Your task to perform on an android device: turn off smart reply in the gmail app Image 0: 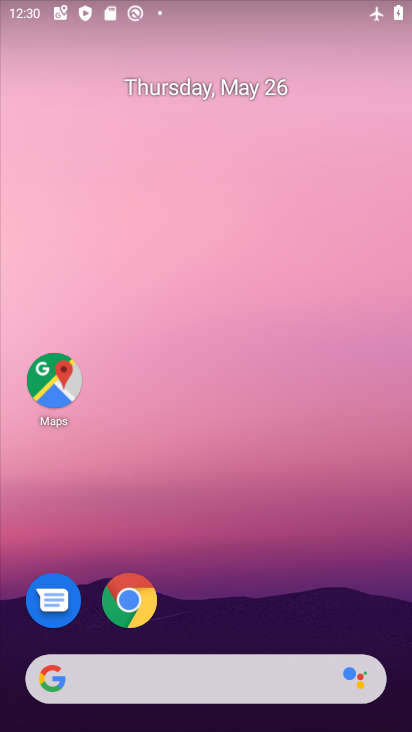
Step 0: drag from (264, 544) to (257, 102)
Your task to perform on an android device: turn off smart reply in the gmail app Image 1: 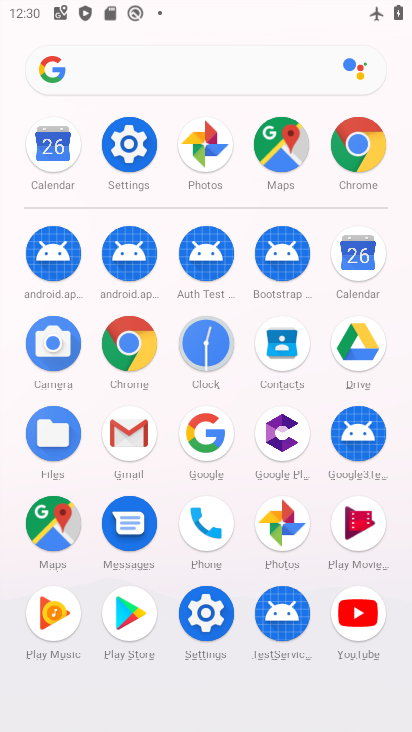
Step 1: click (138, 432)
Your task to perform on an android device: turn off smart reply in the gmail app Image 2: 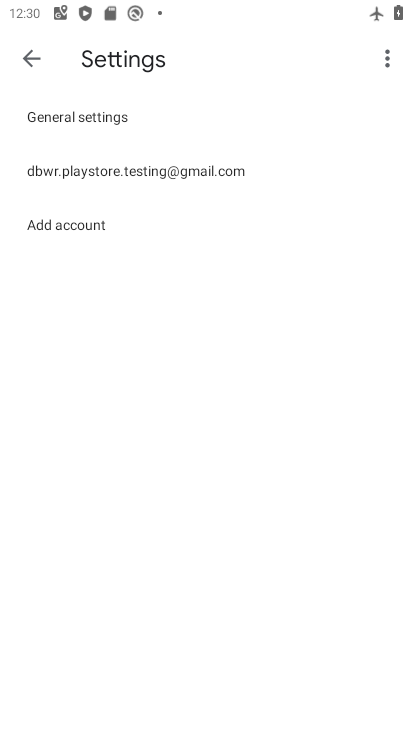
Step 2: click (135, 182)
Your task to perform on an android device: turn off smart reply in the gmail app Image 3: 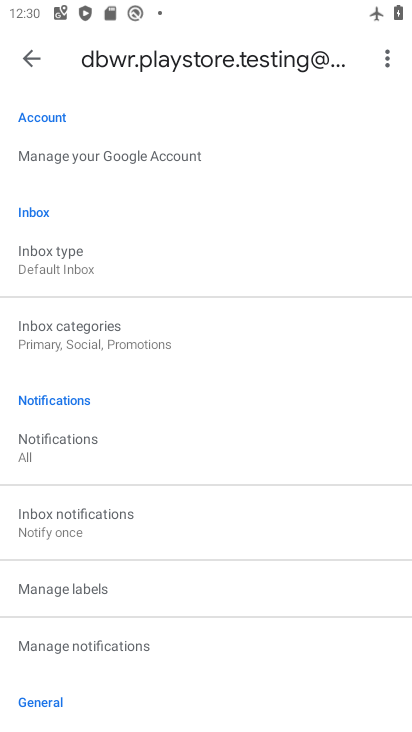
Step 3: drag from (239, 578) to (300, 128)
Your task to perform on an android device: turn off smart reply in the gmail app Image 4: 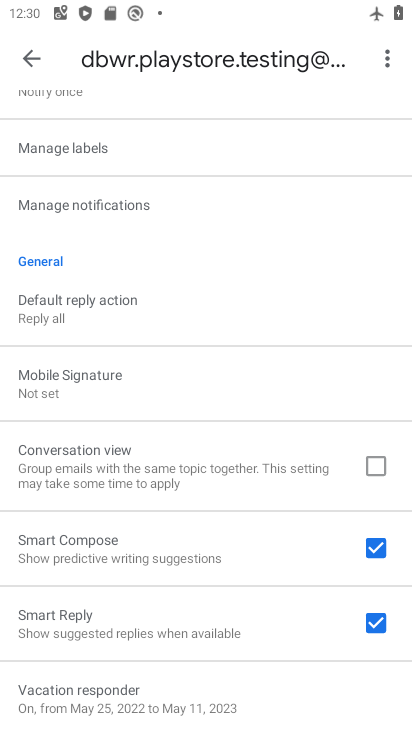
Step 4: click (372, 621)
Your task to perform on an android device: turn off smart reply in the gmail app Image 5: 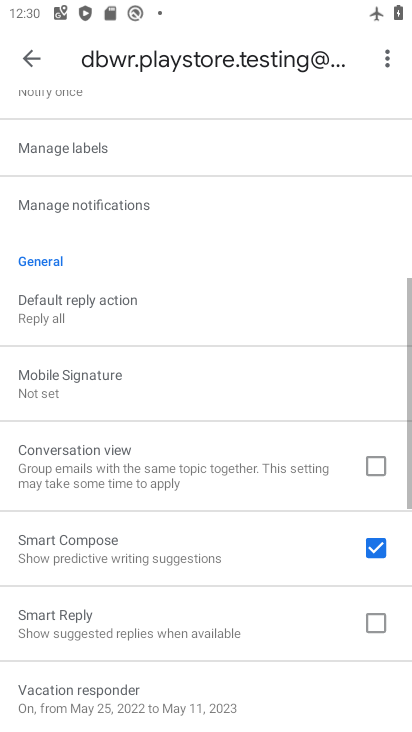
Step 5: task complete